Your task to perform on an android device: change keyboard looks Image 0: 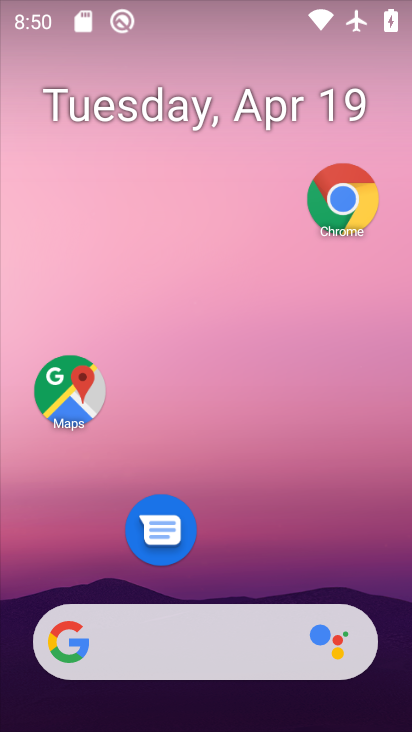
Step 0: click (226, 82)
Your task to perform on an android device: change keyboard looks Image 1: 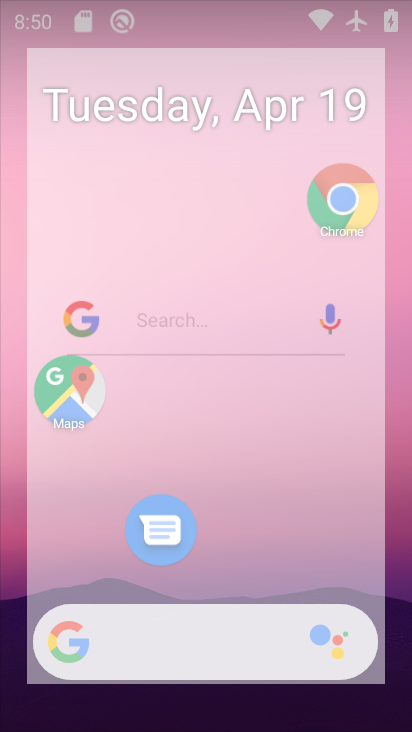
Step 1: drag from (209, 576) to (215, 74)
Your task to perform on an android device: change keyboard looks Image 2: 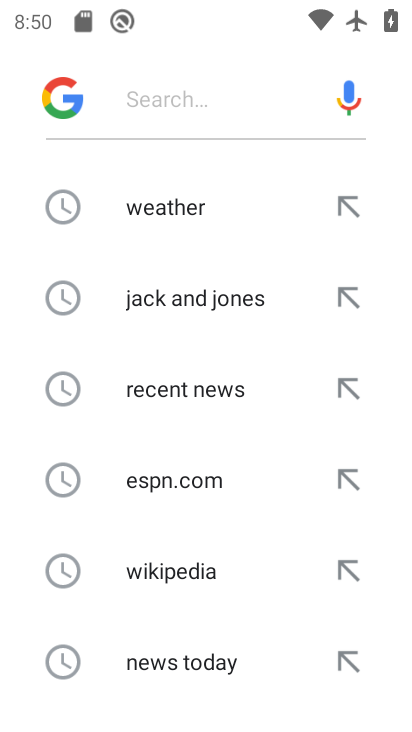
Step 2: press home button
Your task to perform on an android device: change keyboard looks Image 3: 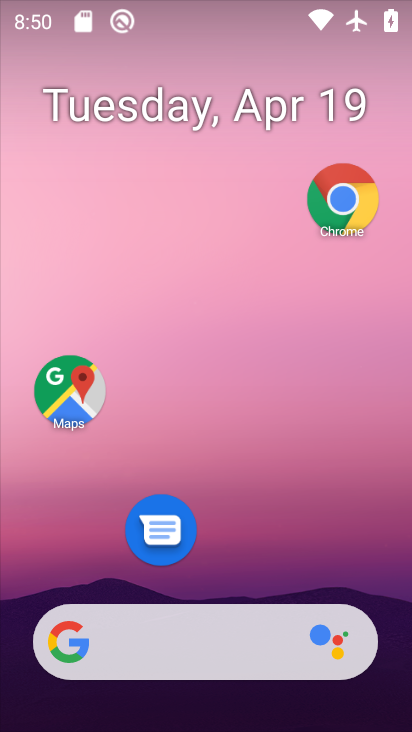
Step 3: drag from (225, 531) to (289, 52)
Your task to perform on an android device: change keyboard looks Image 4: 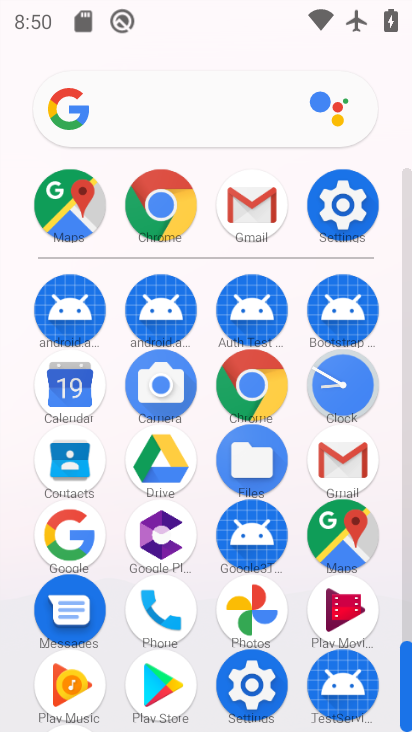
Step 4: click (250, 680)
Your task to perform on an android device: change keyboard looks Image 5: 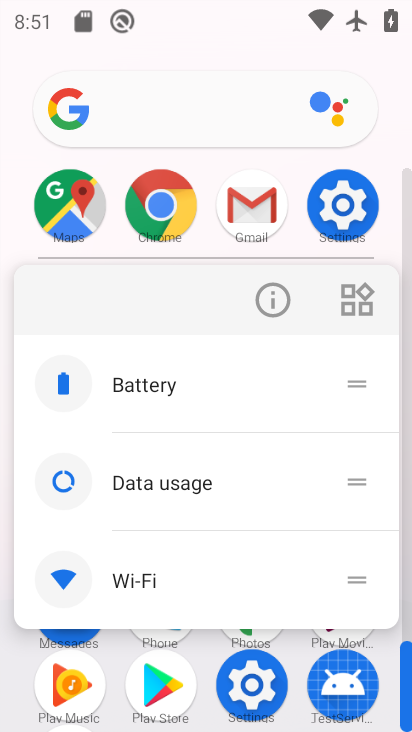
Step 5: click (284, 320)
Your task to perform on an android device: change keyboard looks Image 6: 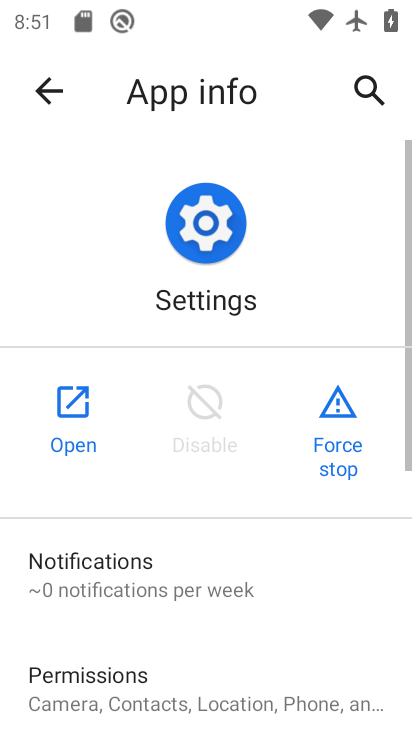
Step 6: click (64, 413)
Your task to perform on an android device: change keyboard looks Image 7: 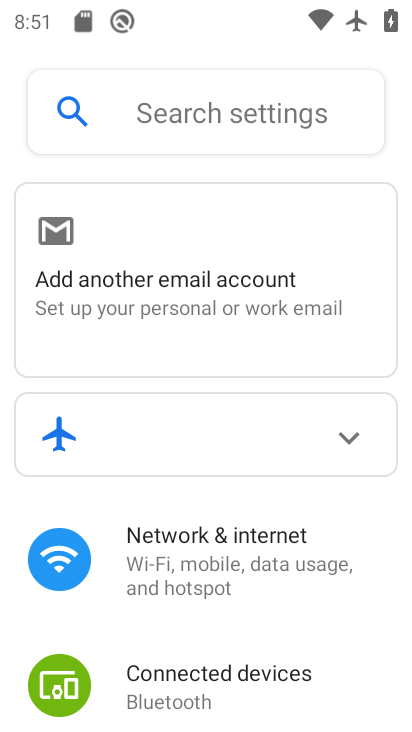
Step 7: drag from (112, 577) to (272, 60)
Your task to perform on an android device: change keyboard looks Image 8: 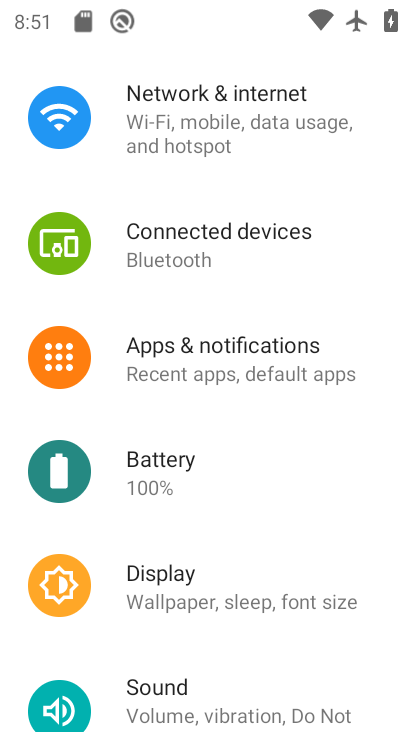
Step 8: drag from (171, 561) to (205, 244)
Your task to perform on an android device: change keyboard looks Image 9: 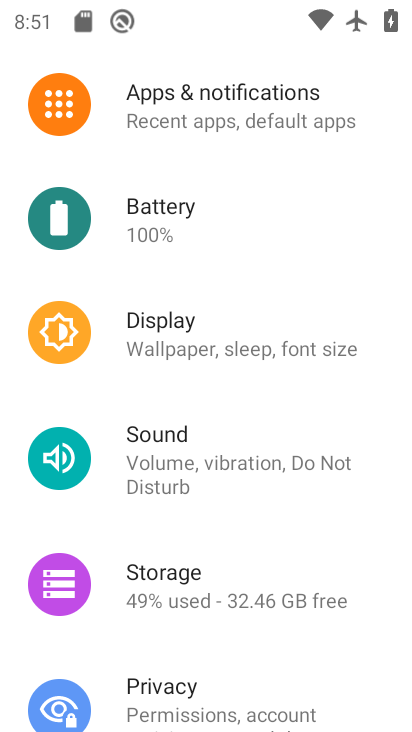
Step 9: drag from (197, 595) to (324, 146)
Your task to perform on an android device: change keyboard looks Image 10: 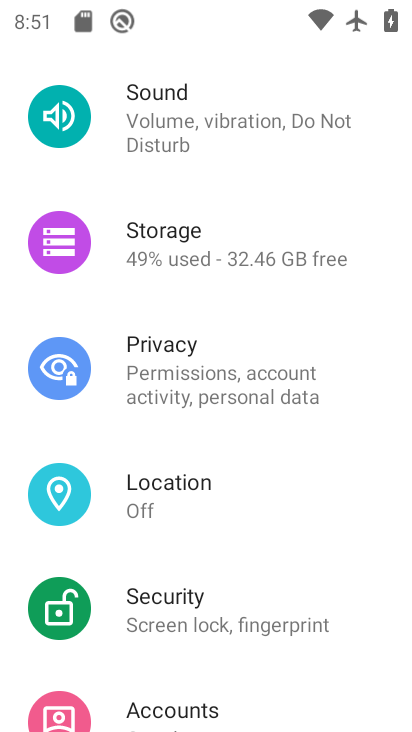
Step 10: drag from (196, 686) to (275, 268)
Your task to perform on an android device: change keyboard looks Image 11: 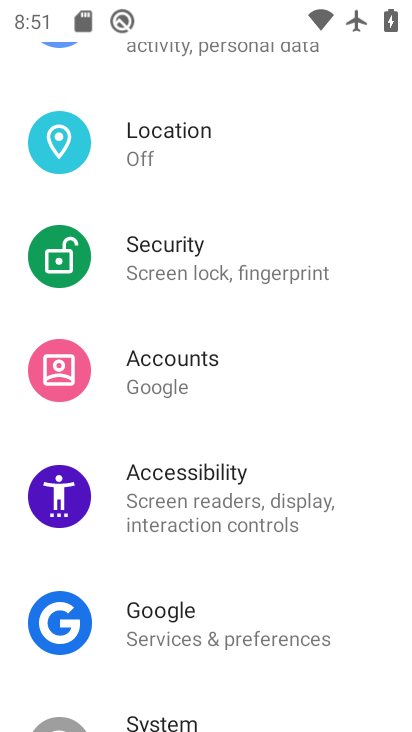
Step 11: drag from (194, 685) to (252, 126)
Your task to perform on an android device: change keyboard looks Image 12: 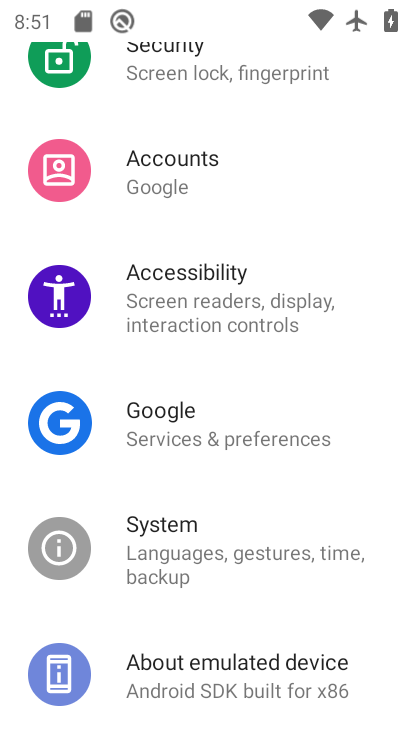
Step 12: click (185, 537)
Your task to perform on an android device: change keyboard looks Image 13: 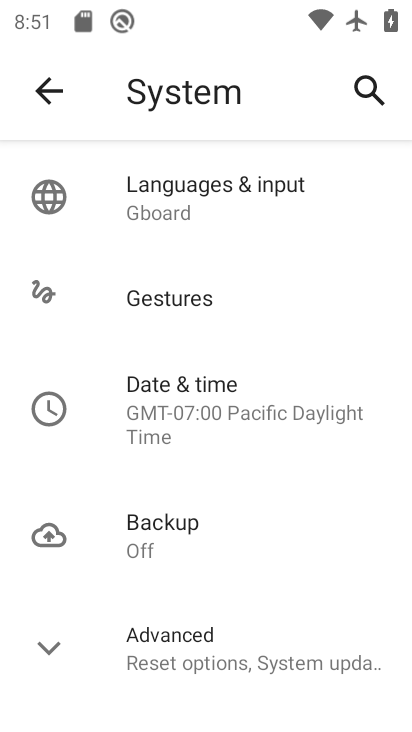
Step 13: drag from (215, 620) to (339, 76)
Your task to perform on an android device: change keyboard looks Image 14: 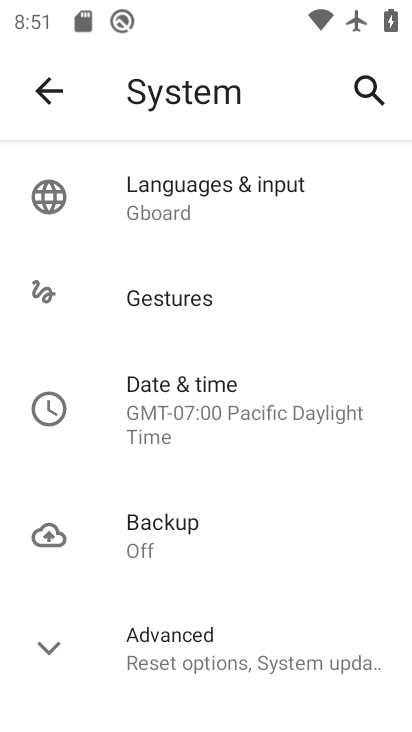
Step 14: click (203, 175)
Your task to perform on an android device: change keyboard looks Image 15: 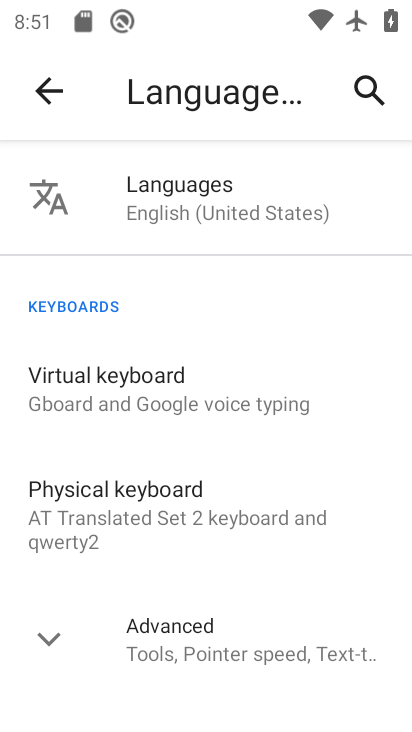
Step 15: click (156, 390)
Your task to perform on an android device: change keyboard looks Image 16: 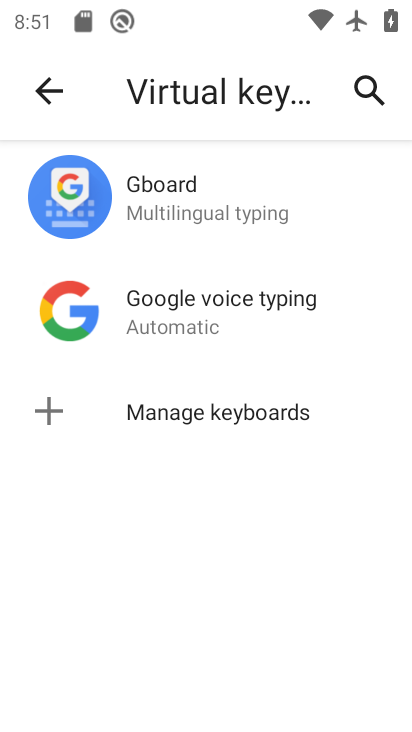
Step 16: click (218, 196)
Your task to perform on an android device: change keyboard looks Image 17: 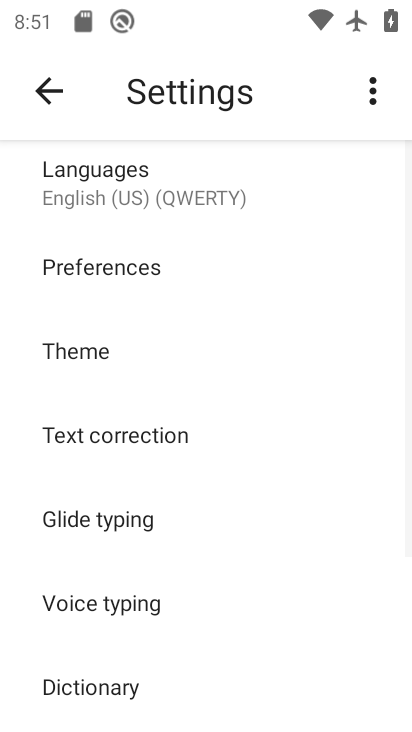
Step 17: click (119, 361)
Your task to perform on an android device: change keyboard looks Image 18: 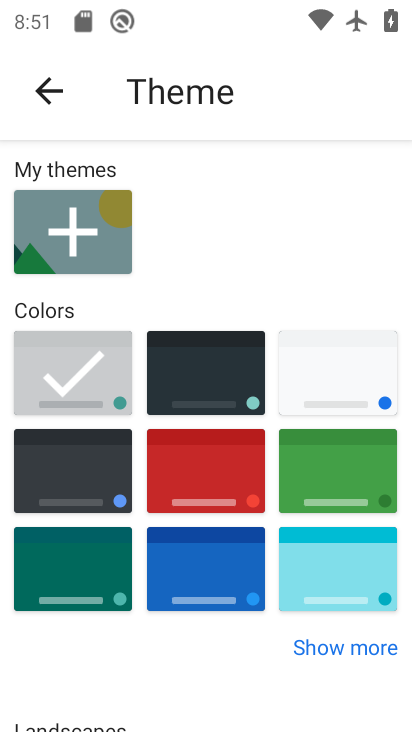
Step 18: click (217, 380)
Your task to perform on an android device: change keyboard looks Image 19: 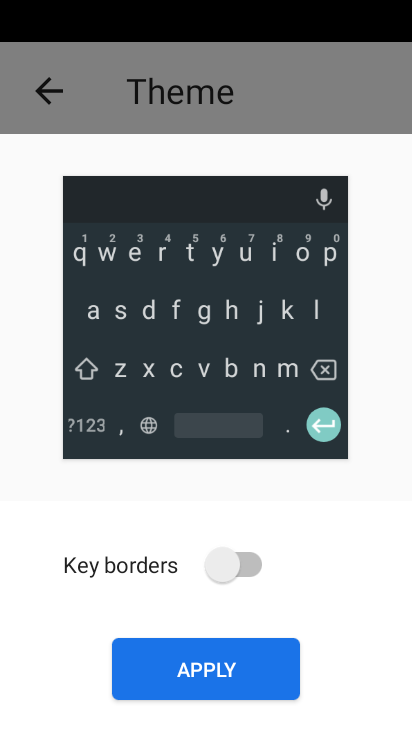
Step 19: click (184, 658)
Your task to perform on an android device: change keyboard looks Image 20: 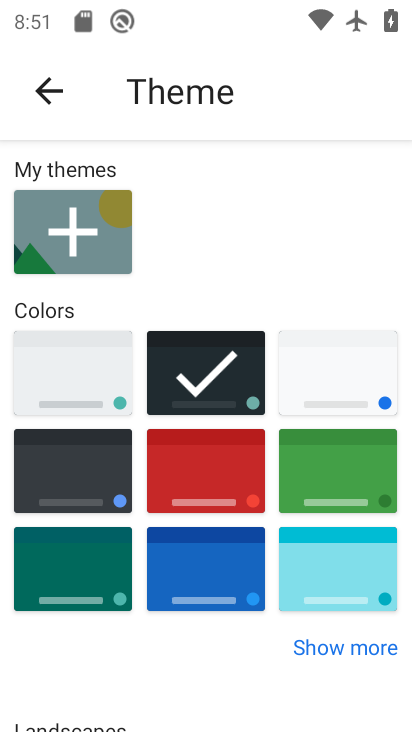
Step 20: task complete